Your task to perform on an android device: empty trash in the gmail app Image 0: 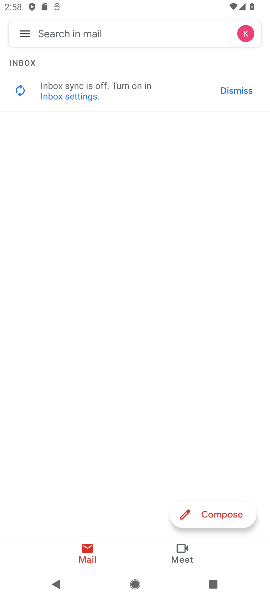
Step 0: click (24, 31)
Your task to perform on an android device: empty trash in the gmail app Image 1: 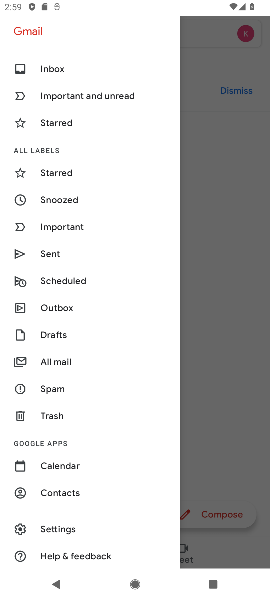
Step 1: click (29, 416)
Your task to perform on an android device: empty trash in the gmail app Image 2: 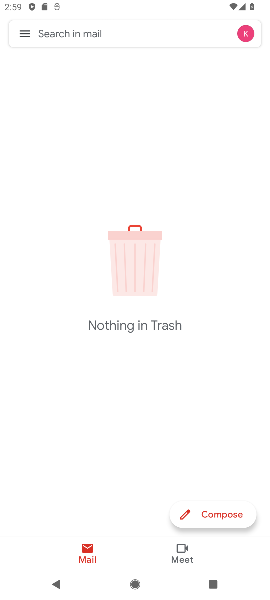
Step 2: task complete